Your task to perform on an android device: add a label to a message in the gmail app Image 0: 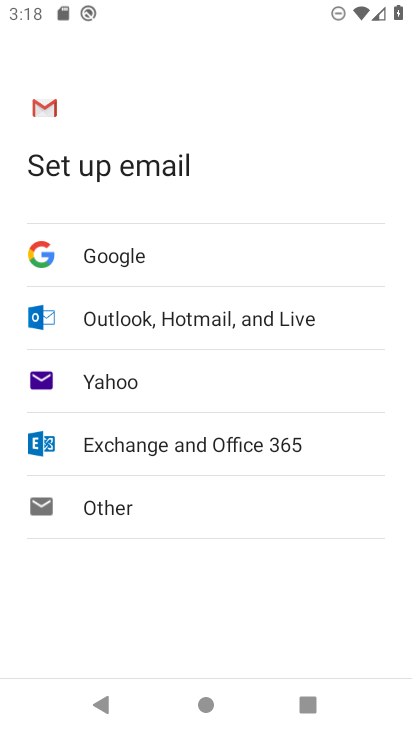
Step 0: press home button
Your task to perform on an android device: add a label to a message in the gmail app Image 1: 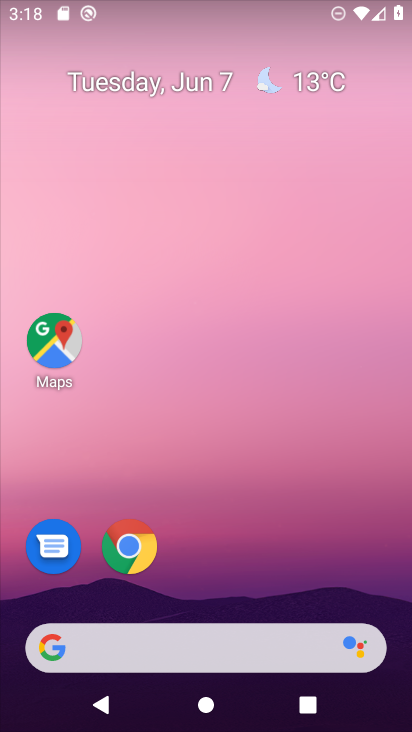
Step 1: drag from (7, 663) to (293, 181)
Your task to perform on an android device: add a label to a message in the gmail app Image 2: 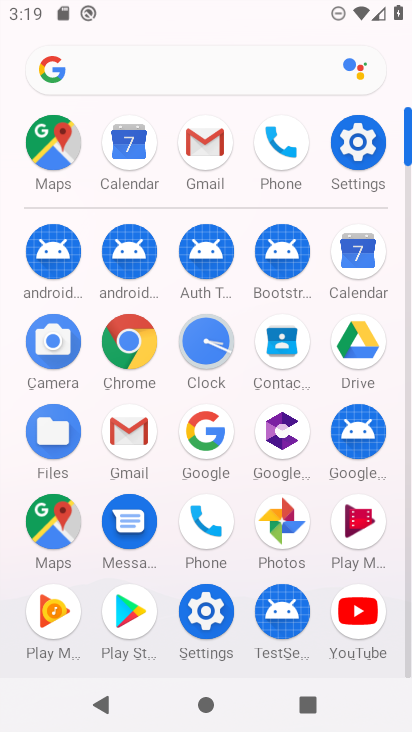
Step 2: click (192, 149)
Your task to perform on an android device: add a label to a message in the gmail app Image 3: 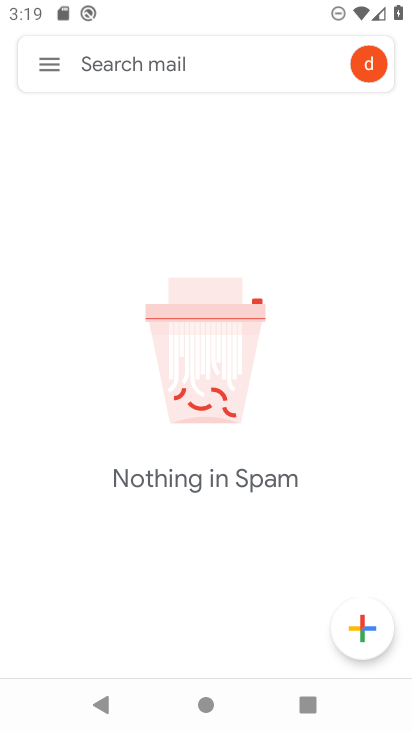
Step 3: task complete